Your task to perform on an android device: Add jbl flip 4 to the cart on ebay.com Image 0: 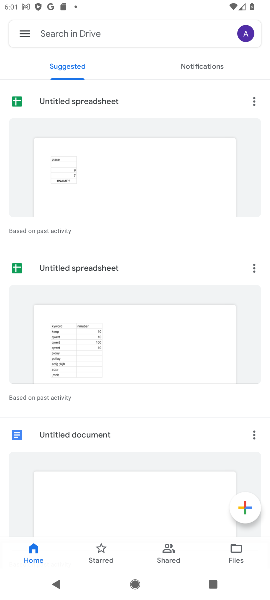
Step 0: press home button
Your task to perform on an android device: Add jbl flip 4 to the cart on ebay.com Image 1: 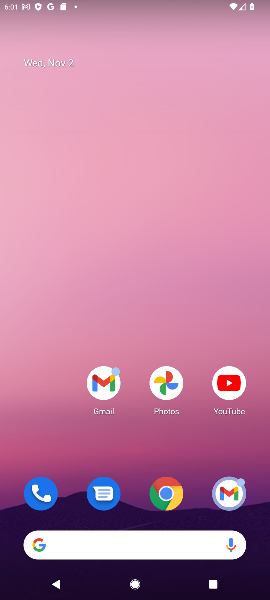
Step 1: drag from (99, 498) to (171, 164)
Your task to perform on an android device: Add jbl flip 4 to the cart on ebay.com Image 2: 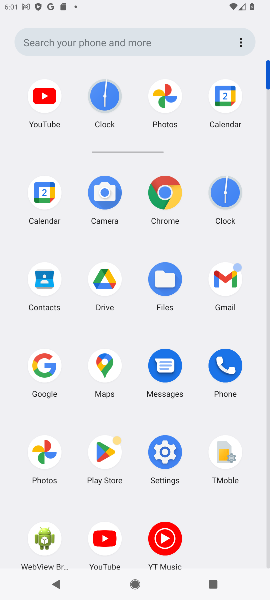
Step 2: click (46, 357)
Your task to perform on an android device: Add jbl flip 4 to the cart on ebay.com Image 3: 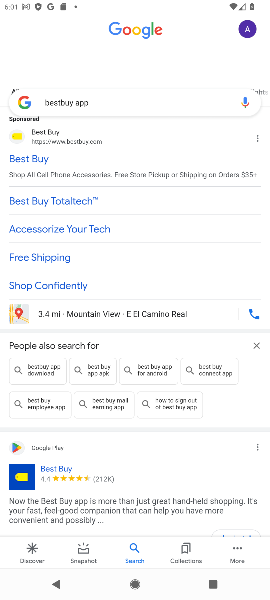
Step 3: click (106, 107)
Your task to perform on an android device: Add jbl flip 4 to the cart on ebay.com Image 4: 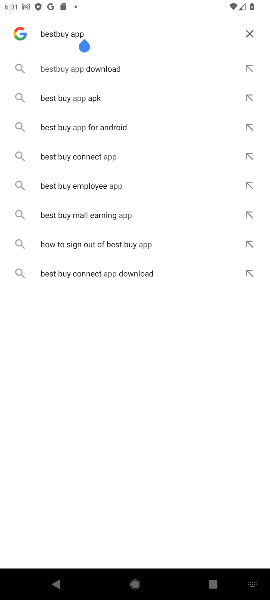
Step 4: click (255, 34)
Your task to perform on an android device: Add jbl flip 4 to the cart on ebay.com Image 5: 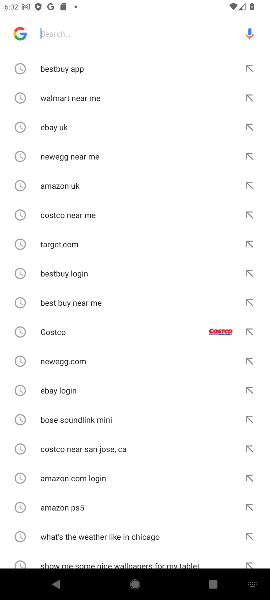
Step 5: click (52, 130)
Your task to perform on an android device: Add jbl flip 4 to the cart on ebay.com Image 6: 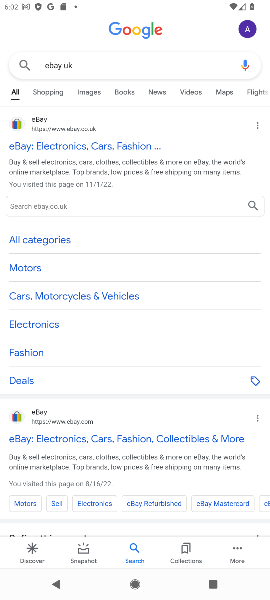
Step 6: click (18, 129)
Your task to perform on an android device: Add jbl flip 4 to the cart on ebay.com Image 7: 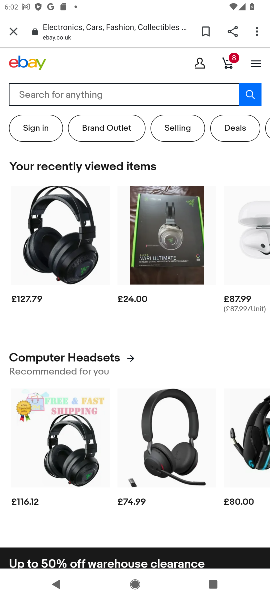
Step 7: click (120, 88)
Your task to perform on an android device: Add jbl flip 4 to the cart on ebay.com Image 8: 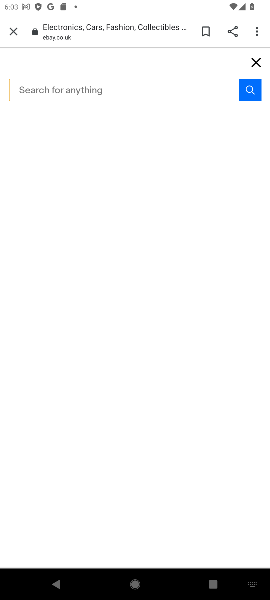
Step 8: type " jbl flip 4  "
Your task to perform on an android device: Add jbl flip 4 to the cart on ebay.com Image 9: 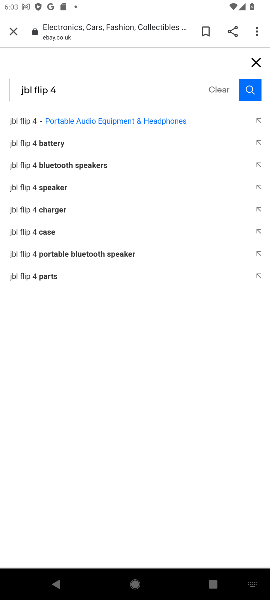
Step 9: click (34, 116)
Your task to perform on an android device: Add jbl flip 4 to the cart on ebay.com Image 10: 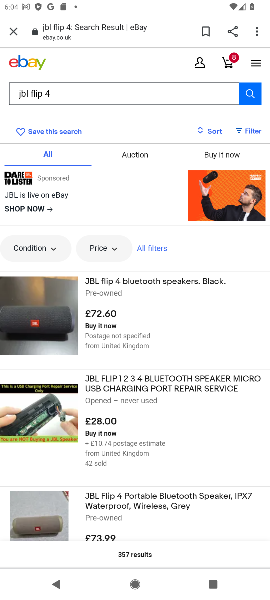
Step 10: click (98, 285)
Your task to perform on an android device: Add jbl flip 4 to the cart on ebay.com Image 11: 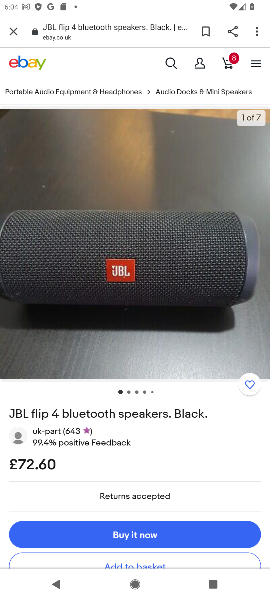
Step 11: drag from (149, 483) to (194, 223)
Your task to perform on an android device: Add jbl flip 4 to the cart on ebay.com Image 12: 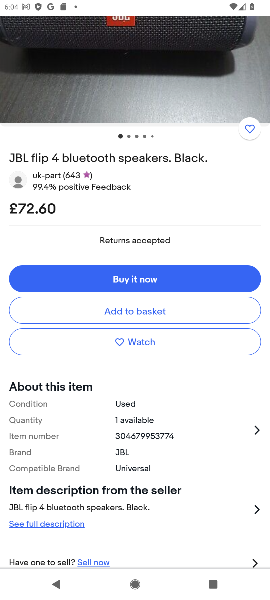
Step 12: click (124, 310)
Your task to perform on an android device: Add jbl flip 4 to the cart on ebay.com Image 13: 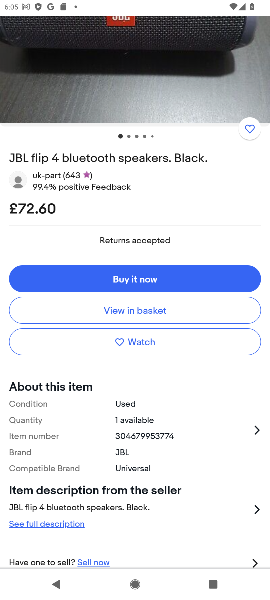
Step 13: click (156, 310)
Your task to perform on an android device: Add jbl flip 4 to the cart on ebay.com Image 14: 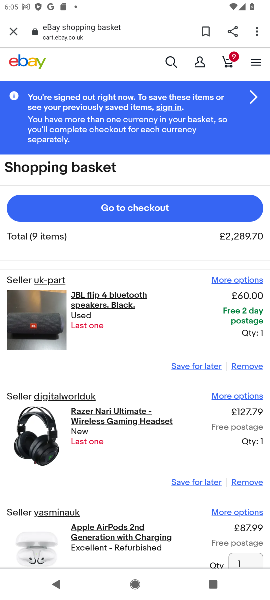
Step 14: task complete